Your task to perform on an android device: Search for Italian restaurants on Maps Image 0: 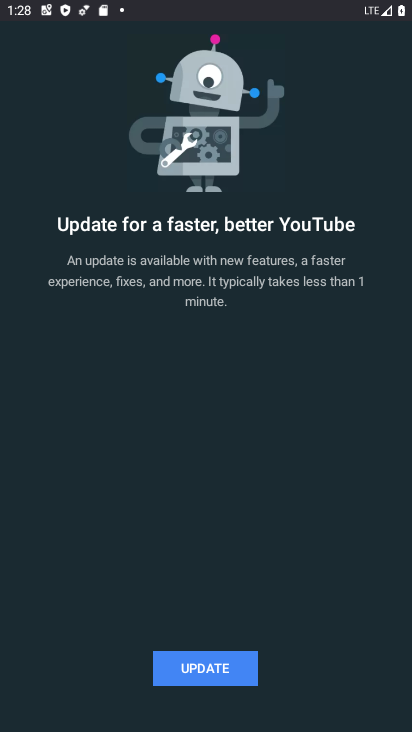
Step 0: press home button
Your task to perform on an android device: Search for Italian restaurants on Maps Image 1: 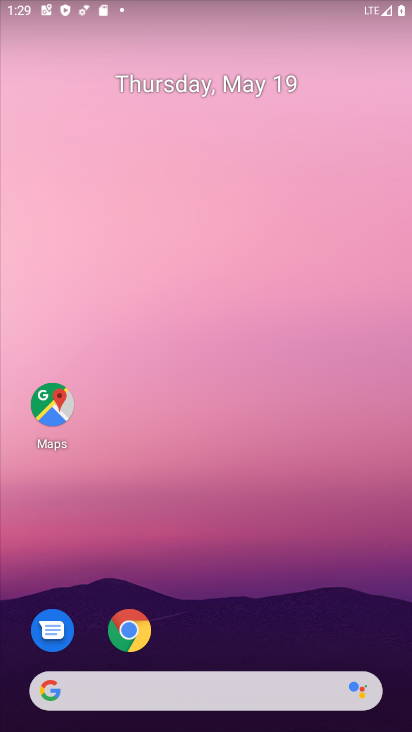
Step 1: click (45, 417)
Your task to perform on an android device: Search for Italian restaurants on Maps Image 2: 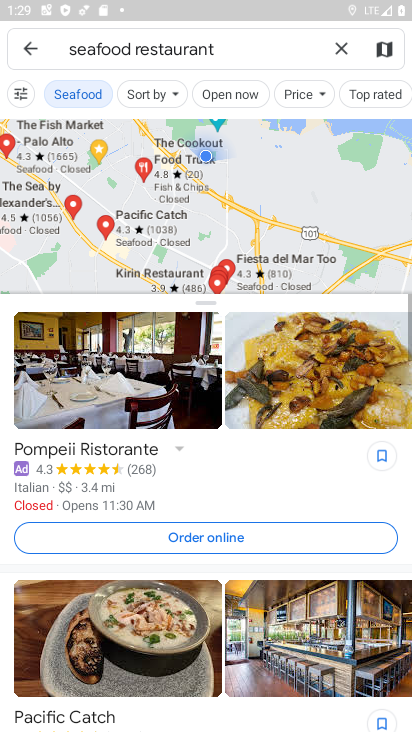
Step 2: click (343, 44)
Your task to perform on an android device: Search for Italian restaurants on Maps Image 3: 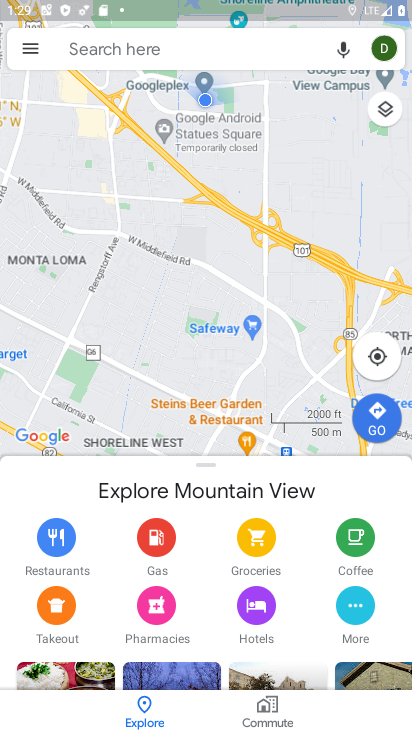
Step 3: click (200, 56)
Your task to perform on an android device: Search for Italian restaurants on Maps Image 4: 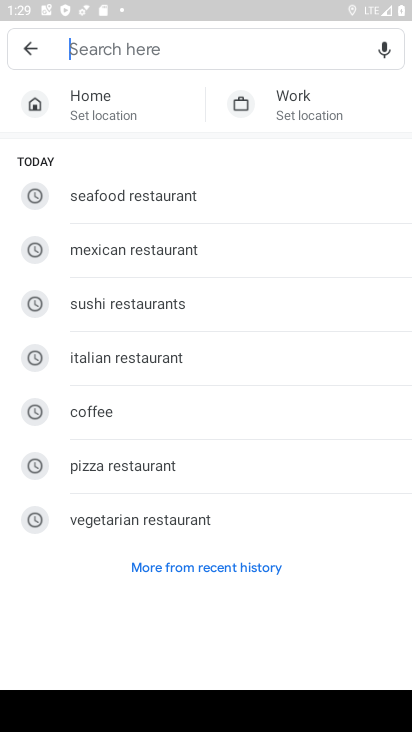
Step 4: click (126, 344)
Your task to perform on an android device: Search for Italian restaurants on Maps Image 5: 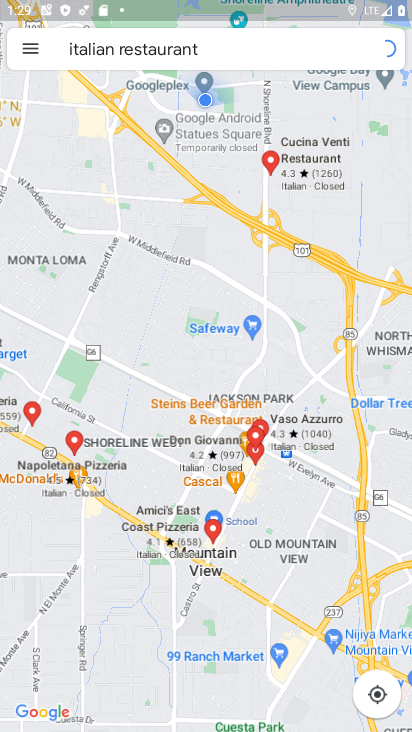
Step 5: task complete